Your task to perform on an android device: Go to calendar. Show me events next week Image 0: 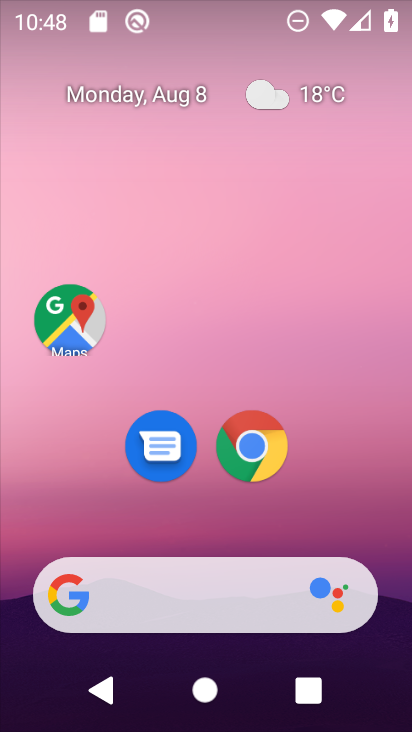
Step 0: drag from (404, 626) to (391, 108)
Your task to perform on an android device: Go to calendar. Show me events next week Image 1: 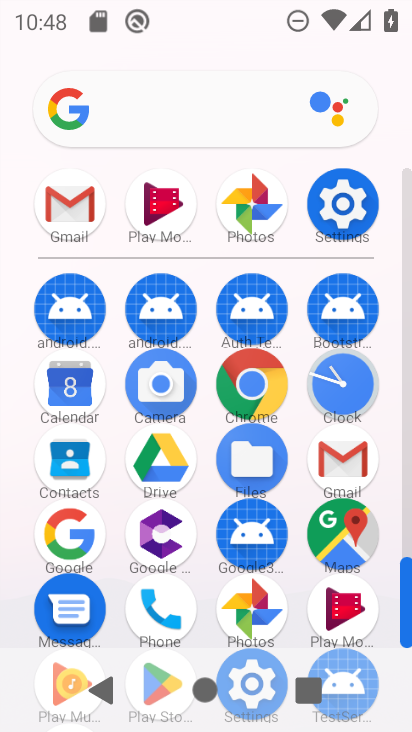
Step 1: click (406, 539)
Your task to perform on an android device: Go to calendar. Show me events next week Image 2: 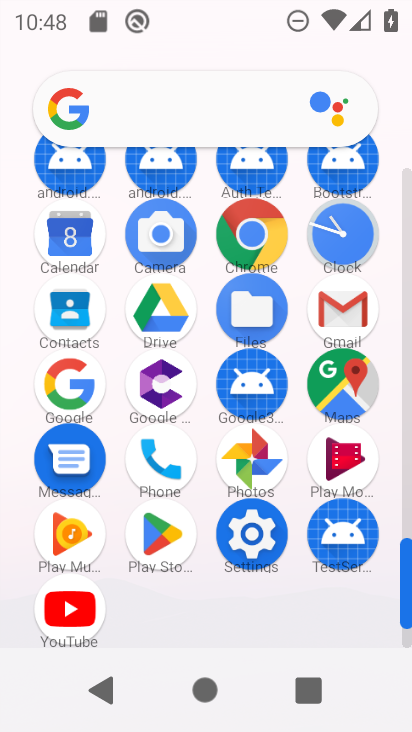
Step 2: click (69, 240)
Your task to perform on an android device: Go to calendar. Show me events next week Image 3: 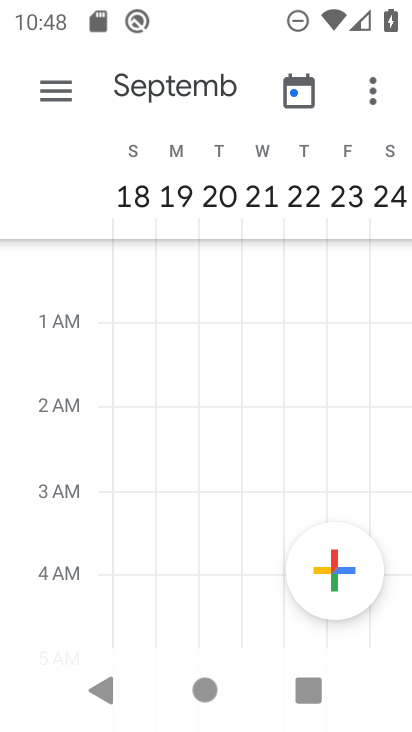
Step 3: click (197, 93)
Your task to perform on an android device: Go to calendar. Show me events next week Image 4: 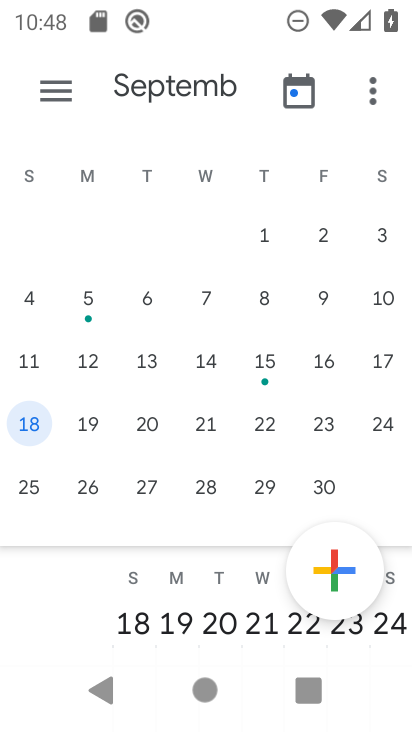
Step 4: drag from (18, 354) to (158, 311)
Your task to perform on an android device: Go to calendar. Show me events next week Image 5: 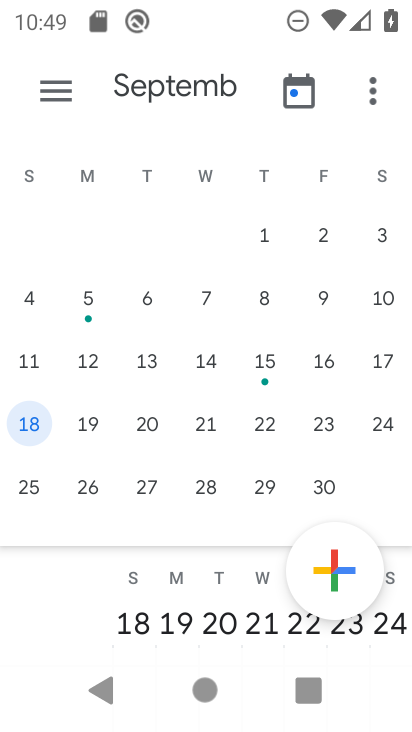
Step 5: drag from (83, 359) to (361, 349)
Your task to perform on an android device: Go to calendar. Show me events next week Image 6: 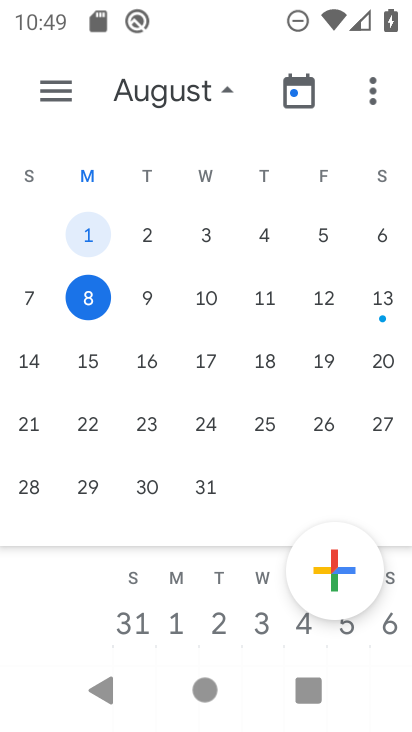
Step 6: click (30, 359)
Your task to perform on an android device: Go to calendar. Show me events next week Image 7: 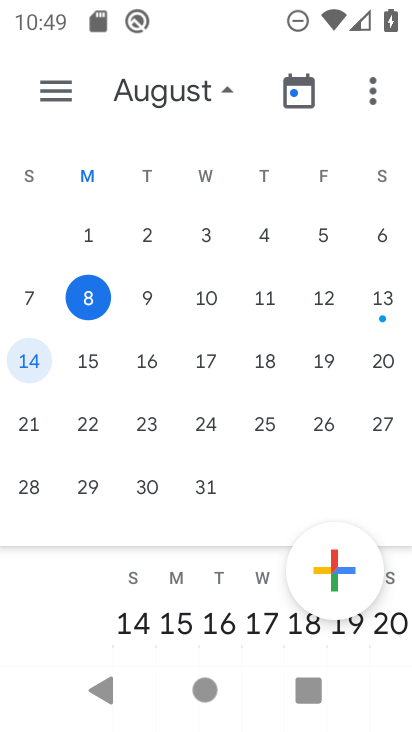
Step 7: task complete